Your task to perform on an android device: search for starred emails in the gmail app Image 0: 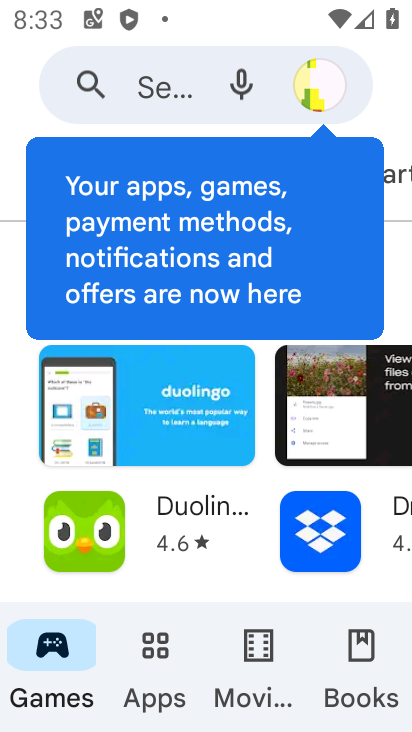
Step 0: press home button
Your task to perform on an android device: search for starred emails in the gmail app Image 1: 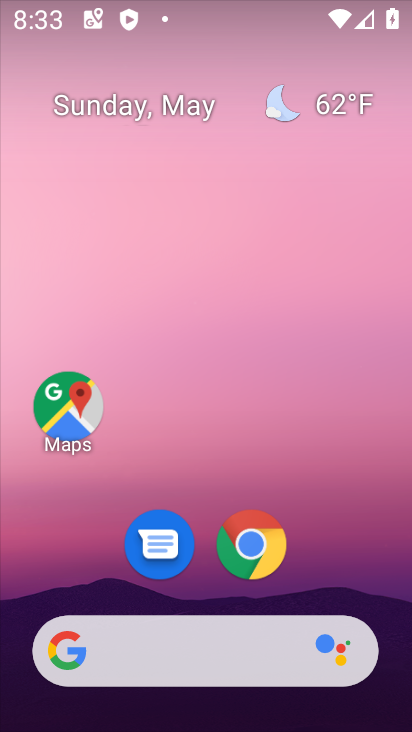
Step 1: drag from (311, 577) to (181, 134)
Your task to perform on an android device: search for starred emails in the gmail app Image 2: 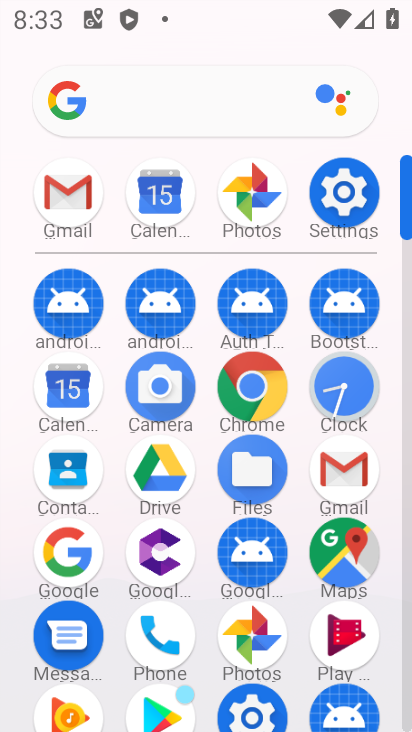
Step 2: click (73, 213)
Your task to perform on an android device: search for starred emails in the gmail app Image 3: 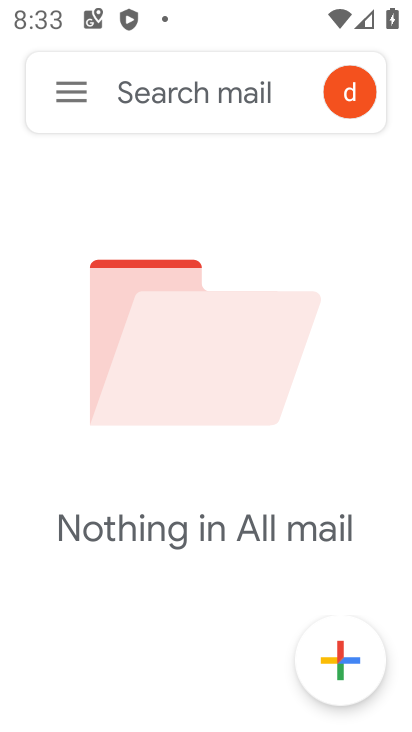
Step 3: click (75, 106)
Your task to perform on an android device: search for starred emails in the gmail app Image 4: 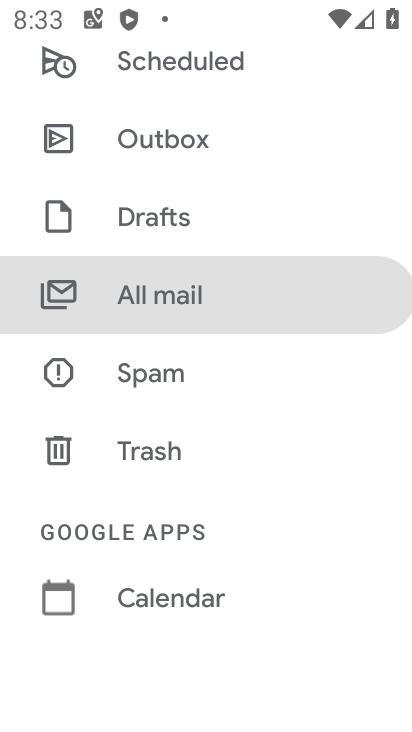
Step 4: drag from (277, 197) to (341, 674)
Your task to perform on an android device: search for starred emails in the gmail app Image 5: 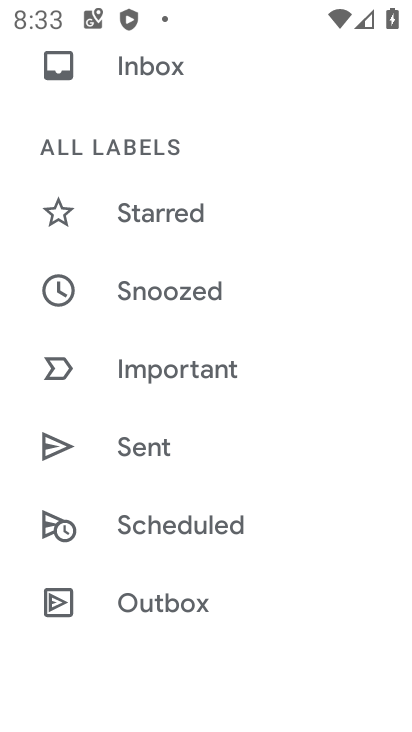
Step 5: drag from (217, 368) to (269, 659)
Your task to perform on an android device: search for starred emails in the gmail app Image 6: 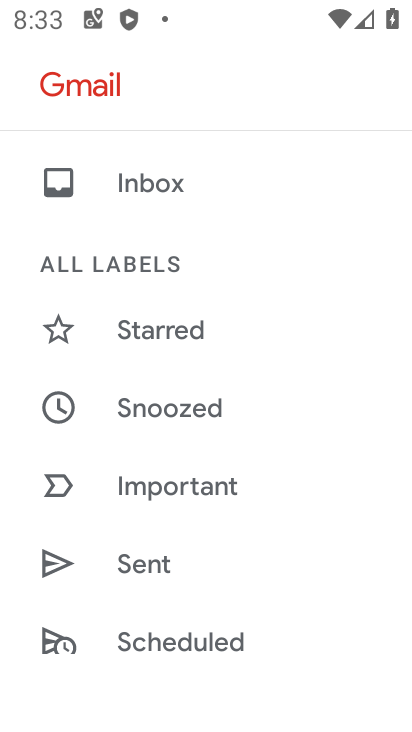
Step 6: click (125, 341)
Your task to perform on an android device: search for starred emails in the gmail app Image 7: 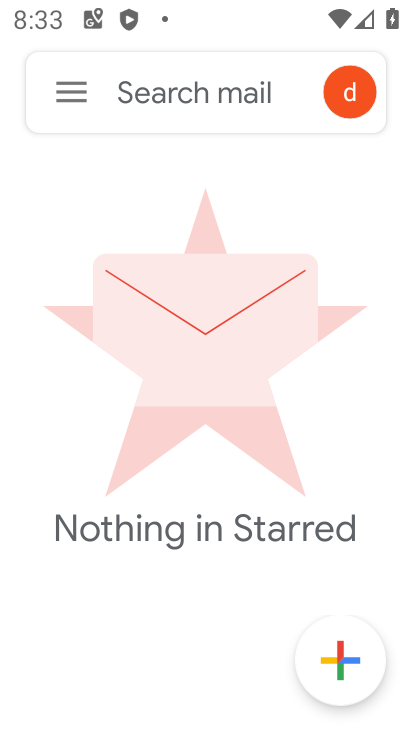
Step 7: task complete